Your task to perform on an android device: Open Chrome and go to the settings page Image 0: 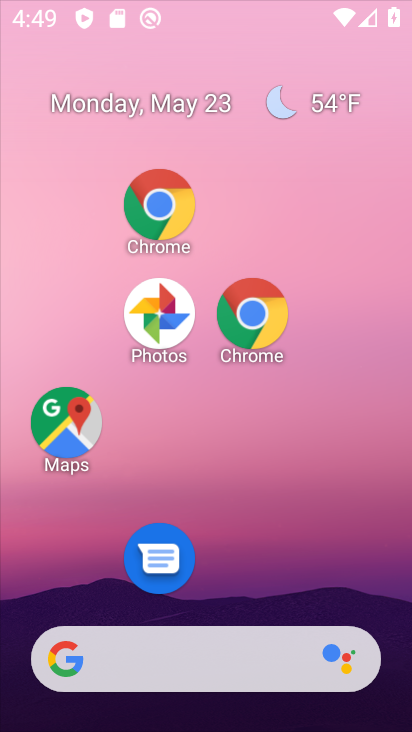
Step 0: click (183, 209)
Your task to perform on an android device: Open Chrome and go to the settings page Image 1: 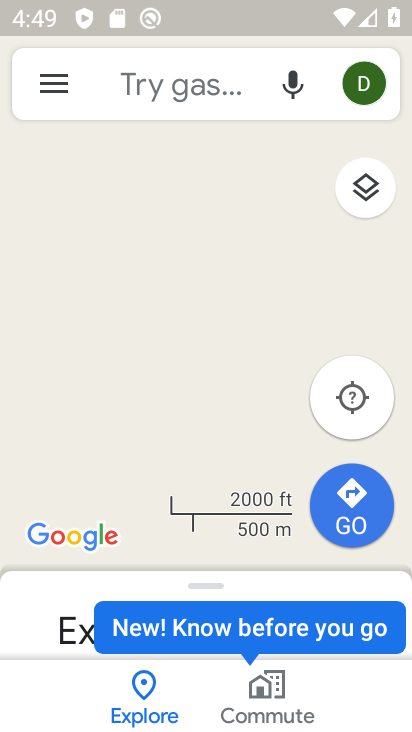
Step 1: click (46, 85)
Your task to perform on an android device: Open Chrome and go to the settings page Image 2: 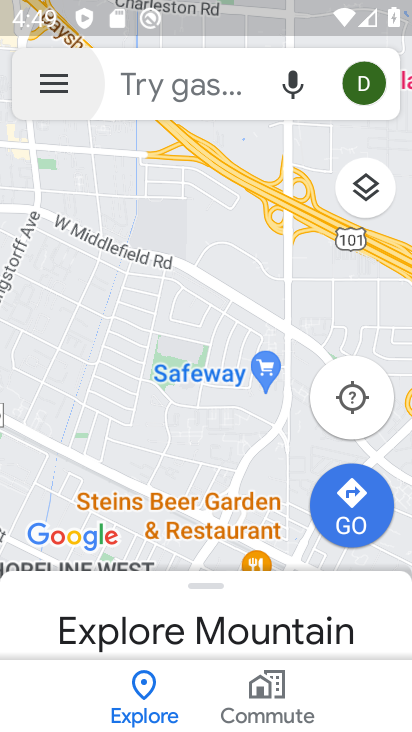
Step 2: click (46, 85)
Your task to perform on an android device: Open Chrome and go to the settings page Image 3: 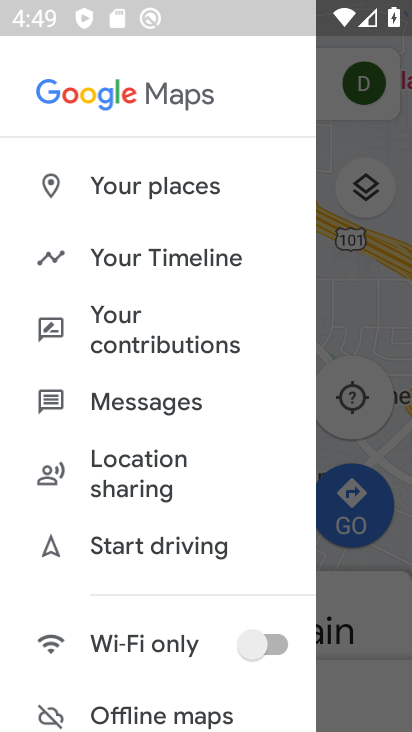
Step 3: click (338, 293)
Your task to perform on an android device: Open Chrome and go to the settings page Image 4: 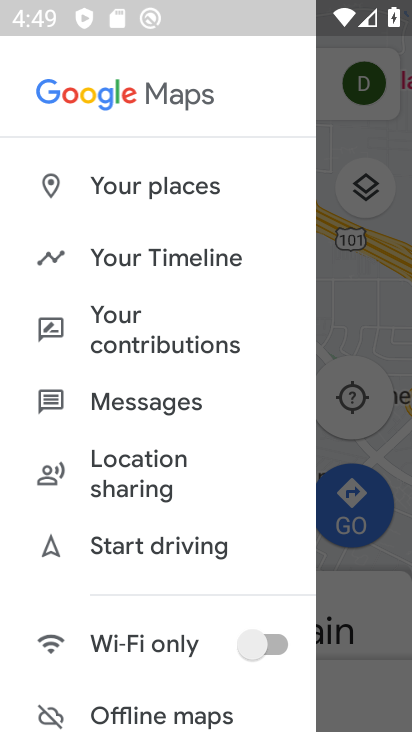
Step 4: click (338, 293)
Your task to perform on an android device: Open Chrome and go to the settings page Image 5: 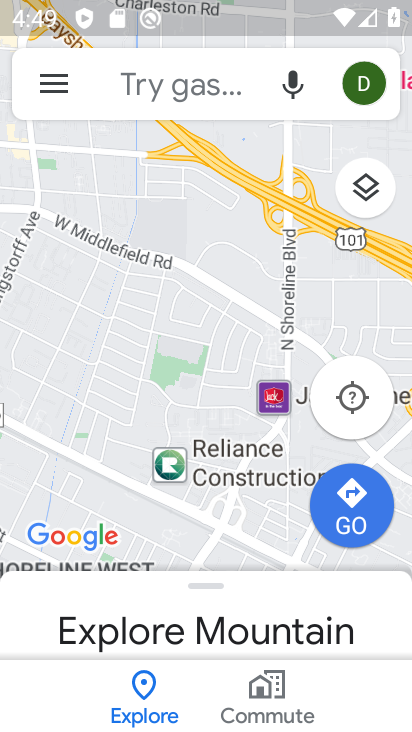
Step 5: press back button
Your task to perform on an android device: Open Chrome and go to the settings page Image 6: 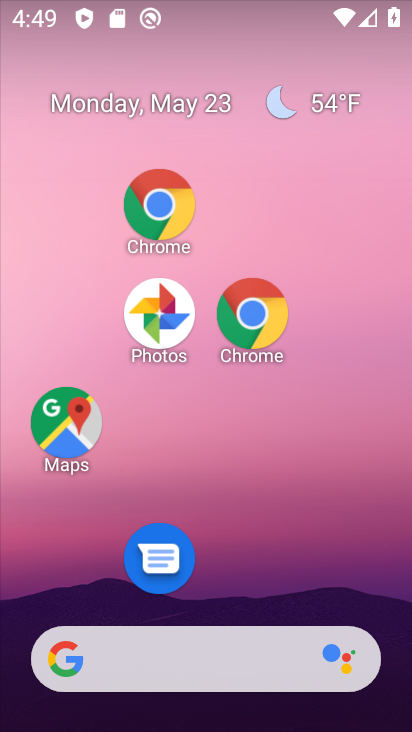
Step 6: drag from (260, 707) to (102, 153)
Your task to perform on an android device: Open Chrome and go to the settings page Image 7: 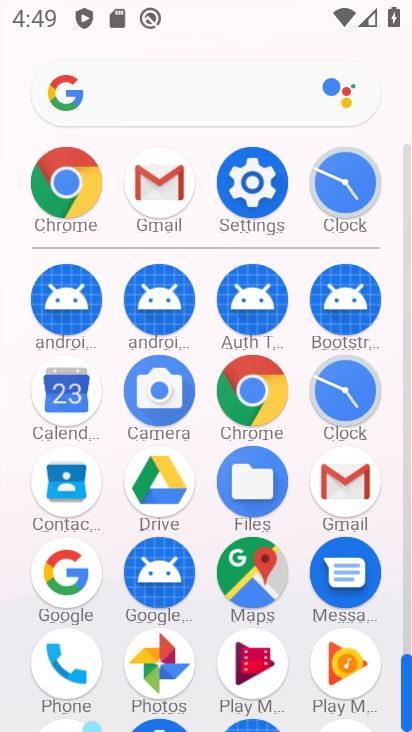
Step 7: click (73, 192)
Your task to perform on an android device: Open Chrome and go to the settings page Image 8: 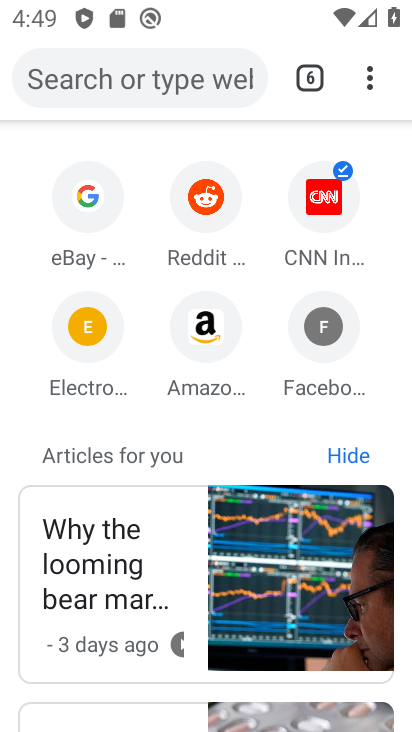
Step 8: drag from (365, 79) to (92, 650)
Your task to perform on an android device: Open Chrome and go to the settings page Image 9: 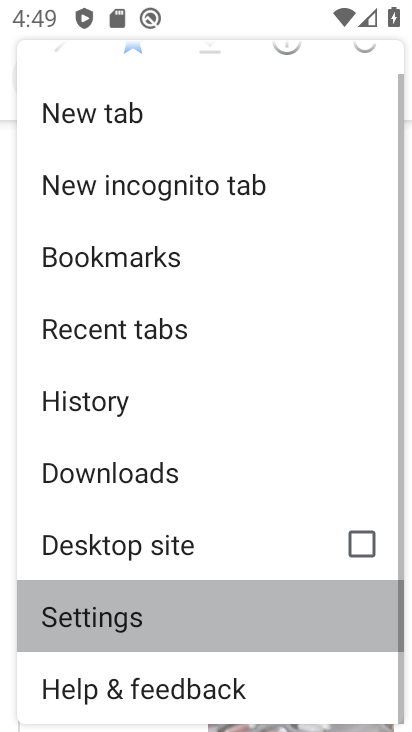
Step 9: click (100, 647)
Your task to perform on an android device: Open Chrome and go to the settings page Image 10: 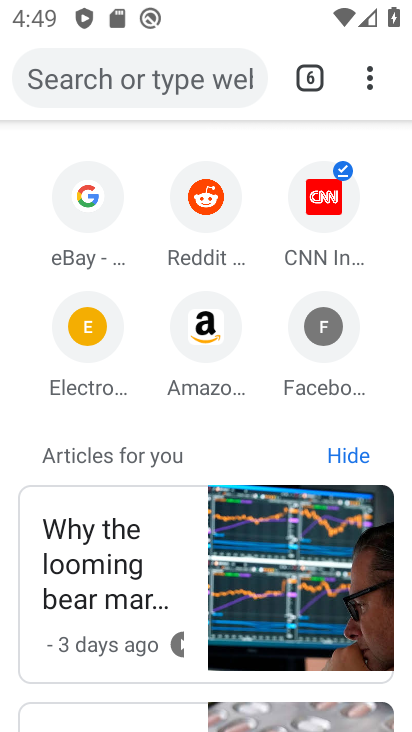
Step 10: click (105, 633)
Your task to perform on an android device: Open Chrome and go to the settings page Image 11: 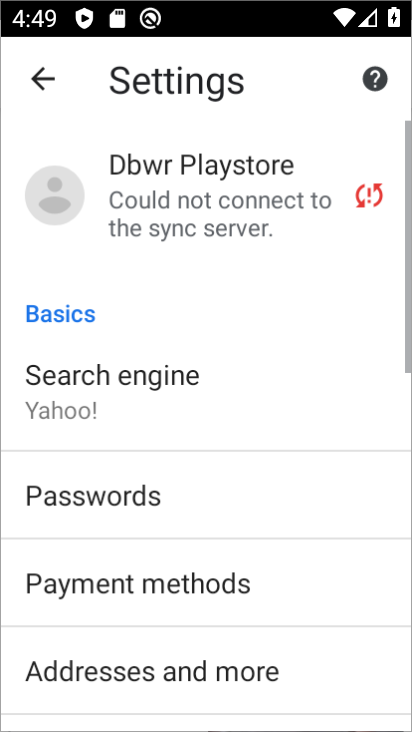
Step 11: click (105, 623)
Your task to perform on an android device: Open Chrome and go to the settings page Image 12: 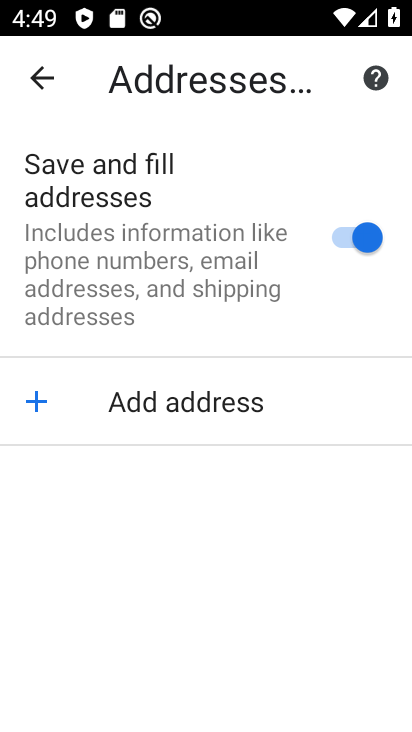
Step 12: click (47, 69)
Your task to perform on an android device: Open Chrome and go to the settings page Image 13: 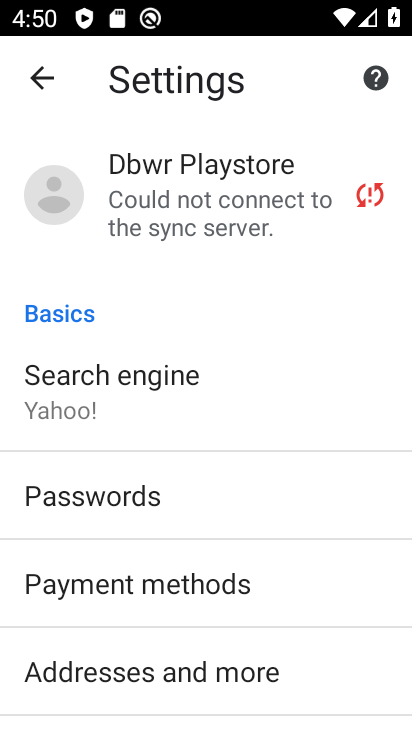
Step 13: task complete